Your task to perform on an android device: Go to battery settings Image 0: 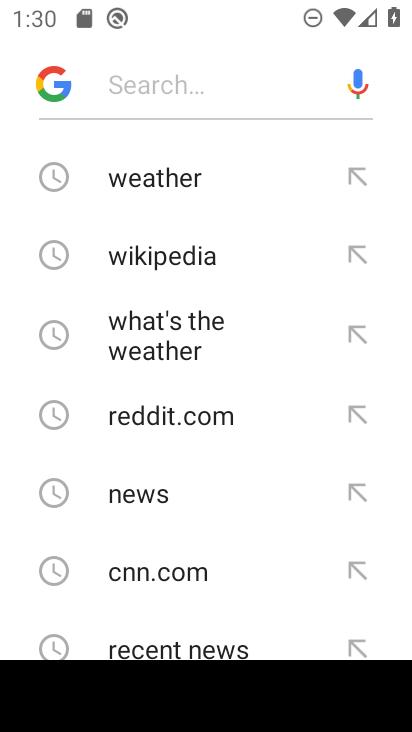
Step 0: press back button
Your task to perform on an android device: Go to battery settings Image 1: 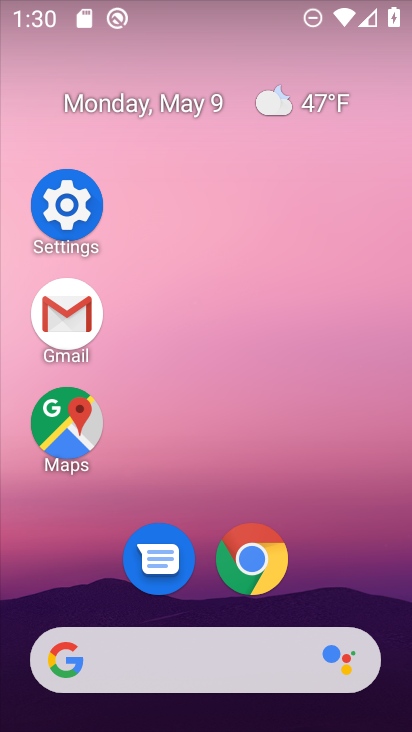
Step 1: click (144, 205)
Your task to perform on an android device: Go to battery settings Image 2: 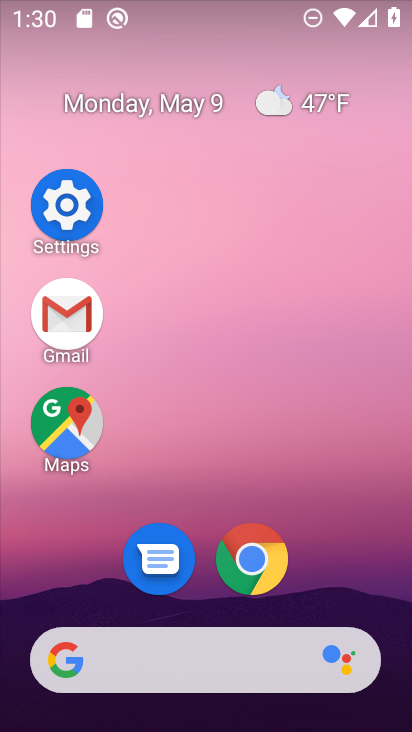
Step 2: click (93, 204)
Your task to perform on an android device: Go to battery settings Image 3: 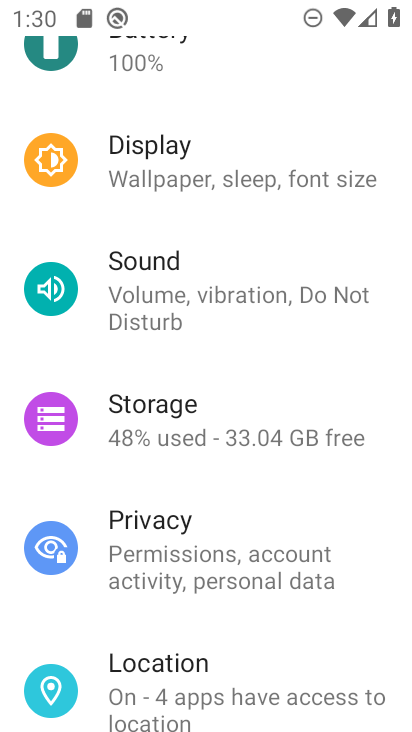
Step 3: click (230, 64)
Your task to perform on an android device: Go to battery settings Image 4: 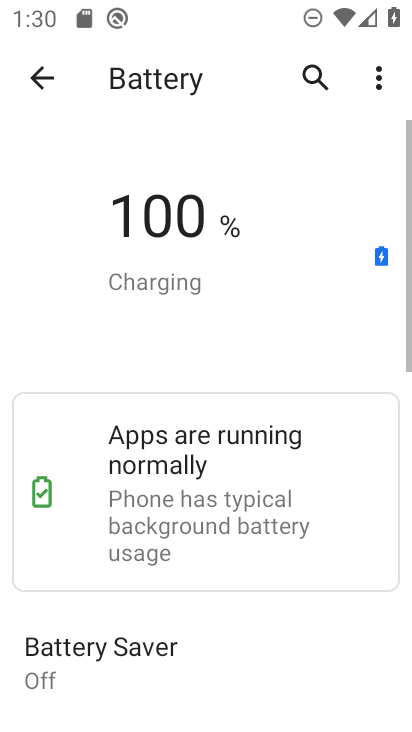
Step 4: task complete